Your task to perform on an android device: Open battery settings Image 0: 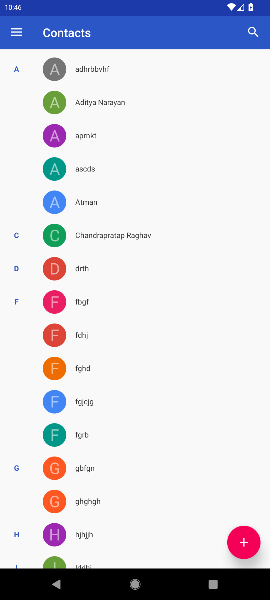
Step 0: press home button
Your task to perform on an android device: Open battery settings Image 1: 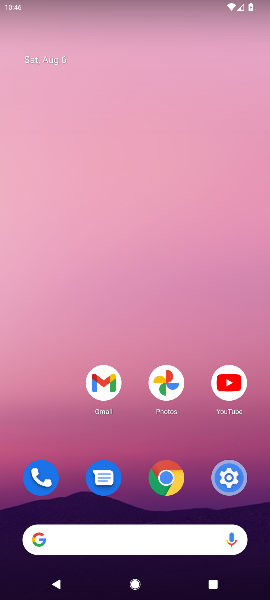
Step 1: drag from (138, 518) to (132, 55)
Your task to perform on an android device: Open battery settings Image 2: 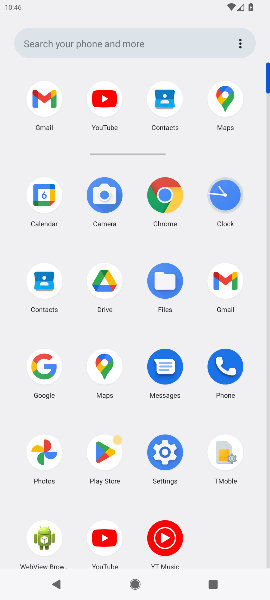
Step 2: click (159, 443)
Your task to perform on an android device: Open battery settings Image 3: 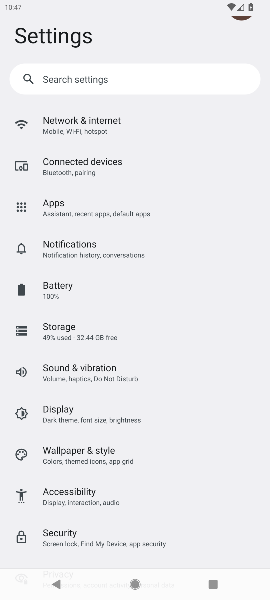
Step 3: click (55, 282)
Your task to perform on an android device: Open battery settings Image 4: 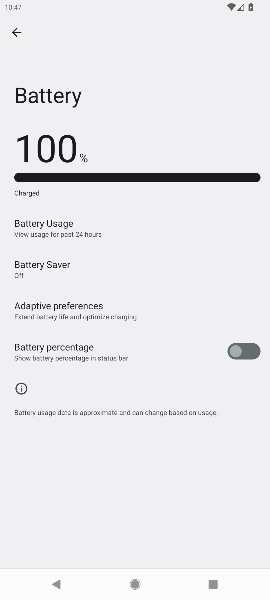
Step 4: task complete